Your task to perform on an android device: turn on notifications settings in the gmail app Image 0: 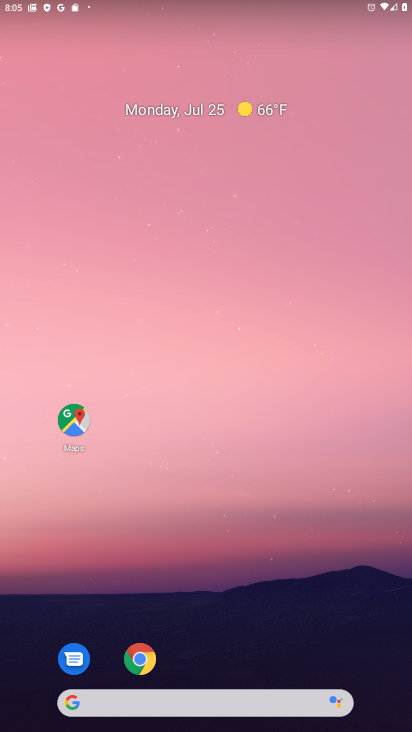
Step 0: drag from (176, 673) to (193, 164)
Your task to perform on an android device: turn on notifications settings in the gmail app Image 1: 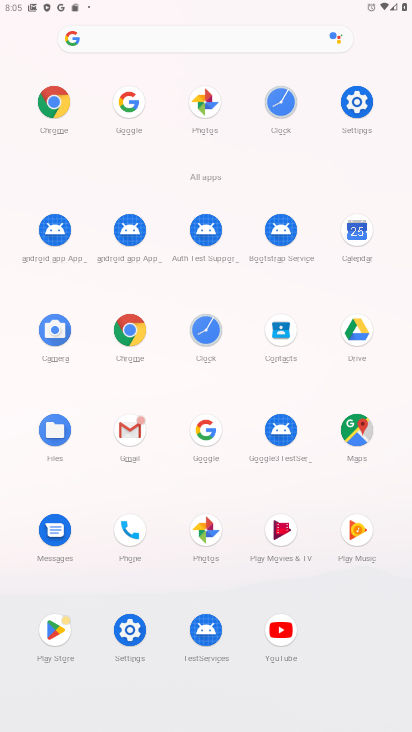
Step 1: click (158, 438)
Your task to perform on an android device: turn on notifications settings in the gmail app Image 2: 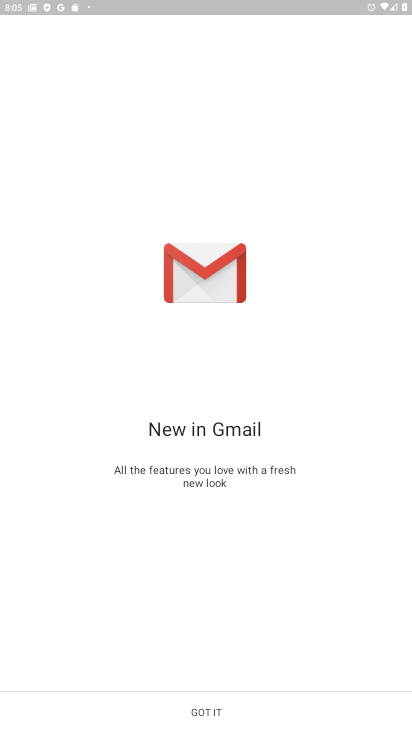
Step 2: click (179, 708)
Your task to perform on an android device: turn on notifications settings in the gmail app Image 3: 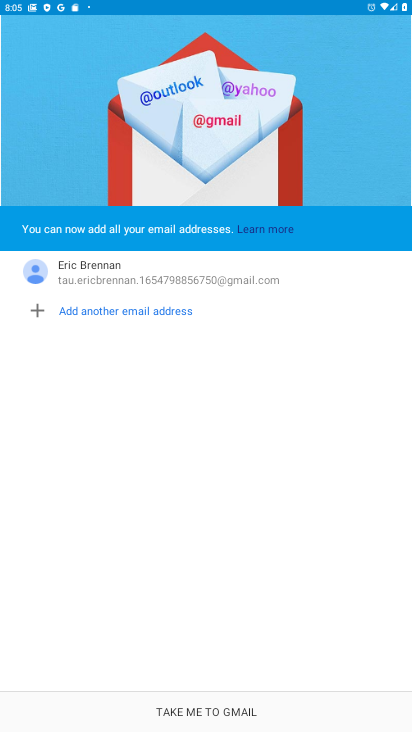
Step 3: click (179, 708)
Your task to perform on an android device: turn on notifications settings in the gmail app Image 4: 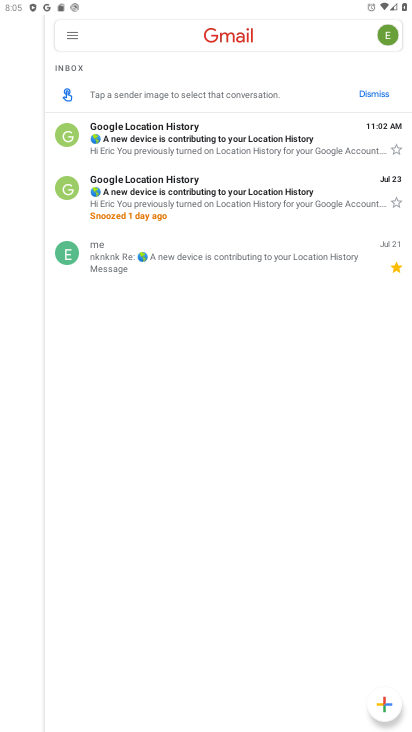
Step 4: click (71, 31)
Your task to perform on an android device: turn on notifications settings in the gmail app Image 5: 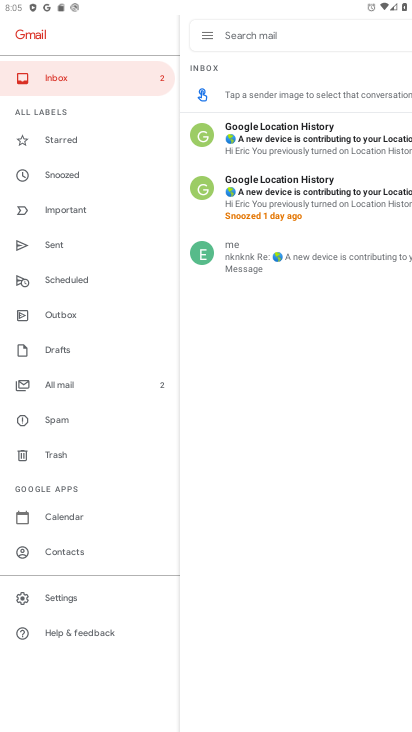
Step 5: click (58, 592)
Your task to perform on an android device: turn on notifications settings in the gmail app Image 6: 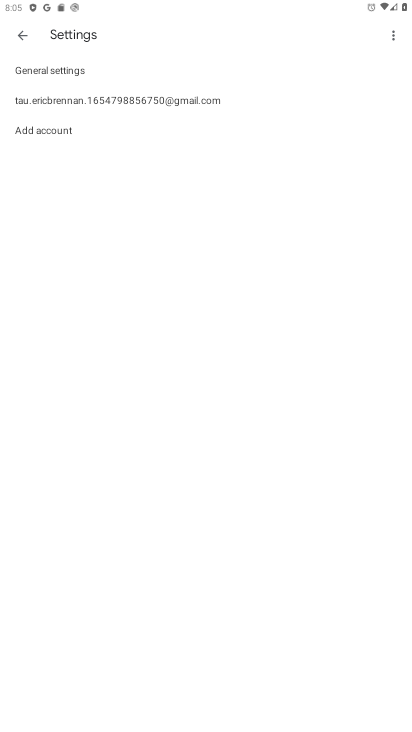
Step 6: click (89, 63)
Your task to perform on an android device: turn on notifications settings in the gmail app Image 7: 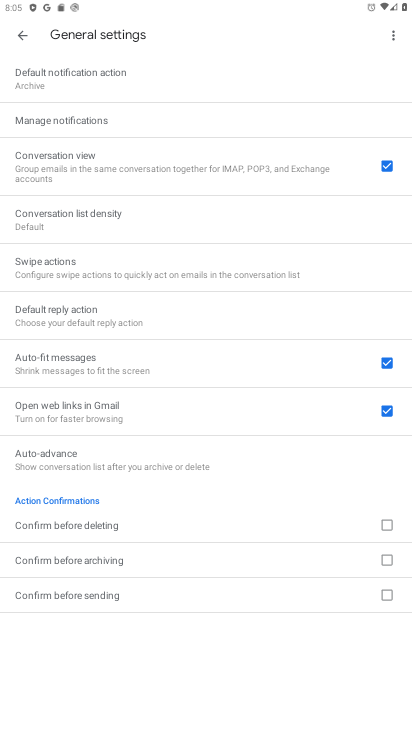
Step 7: click (77, 122)
Your task to perform on an android device: turn on notifications settings in the gmail app Image 8: 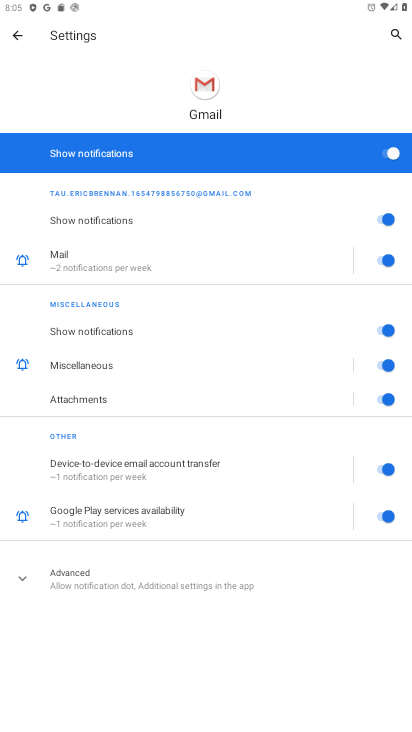
Step 8: task complete